Your task to perform on an android device: turn on showing notifications on the lock screen Image 0: 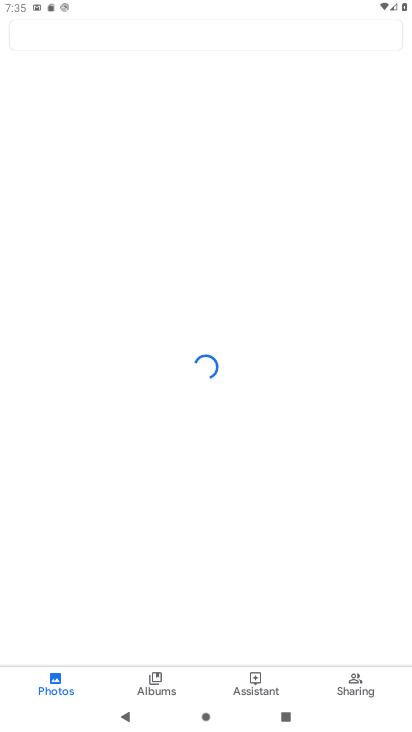
Step 0: press home button
Your task to perform on an android device: turn on showing notifications on the lock screen Image 1: 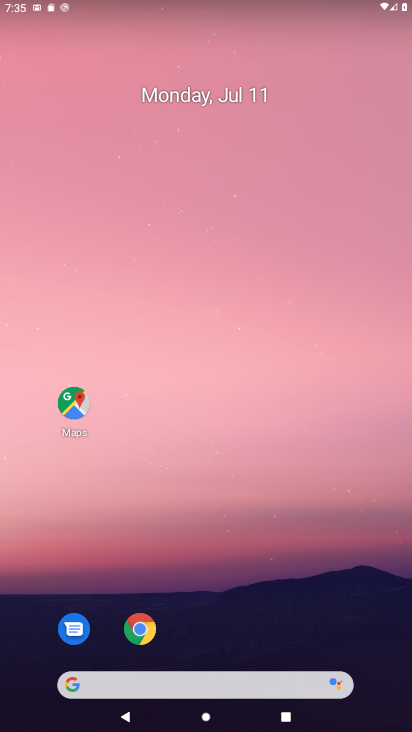
Step 1: drag from (357, 614) to (339, 208)
Your task to perform on an android device: turn on showing notifications on the lock screen Image 2: 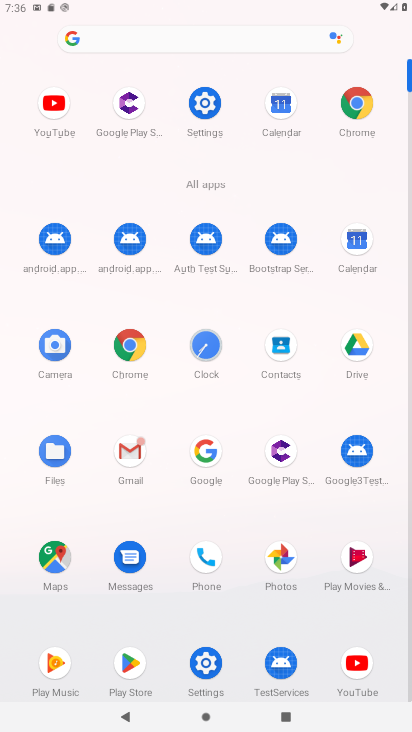
Step 2: click (207, 117)
Your task to perform on an android device: turn on showing notifications on the lock screen Image 3: 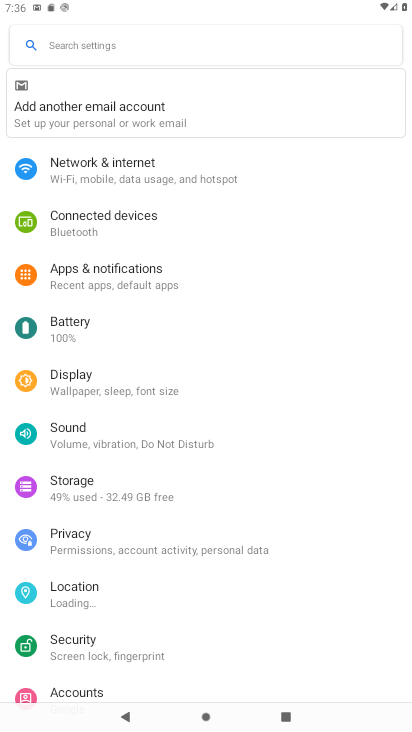
Step 3: click (206, 281)
Your task to perform on an android device: turn on showing notifications on the lock screen Image 4: 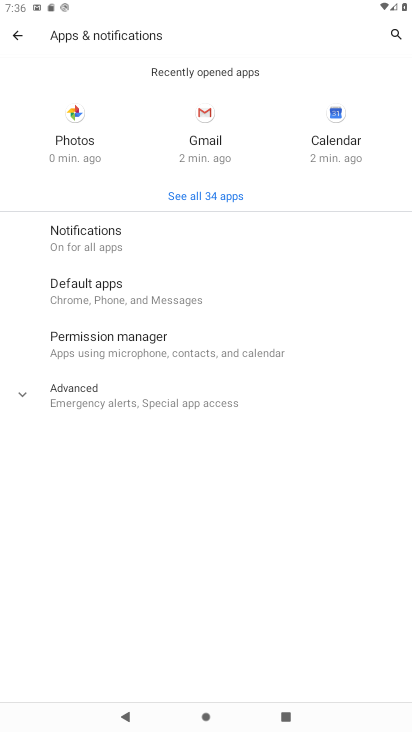
Step 4: click (151, 250)
Your task to perform on an android device: turn on showing notifications on the lock screen Image 5: 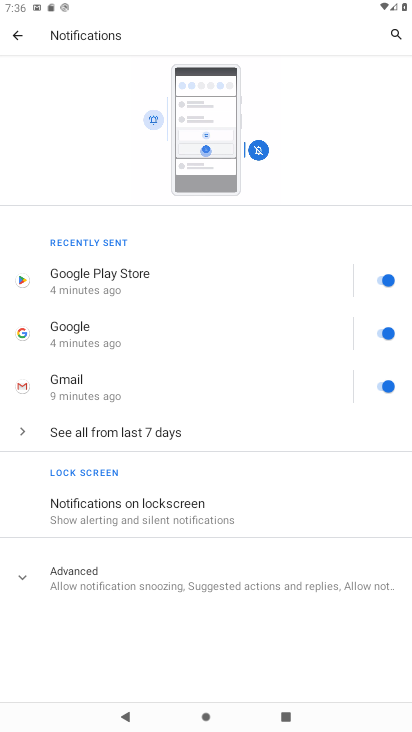
Step 5: click (224, 510)
Your task to perform on an android device: turn on showing notifications on the lock screen Image 6: 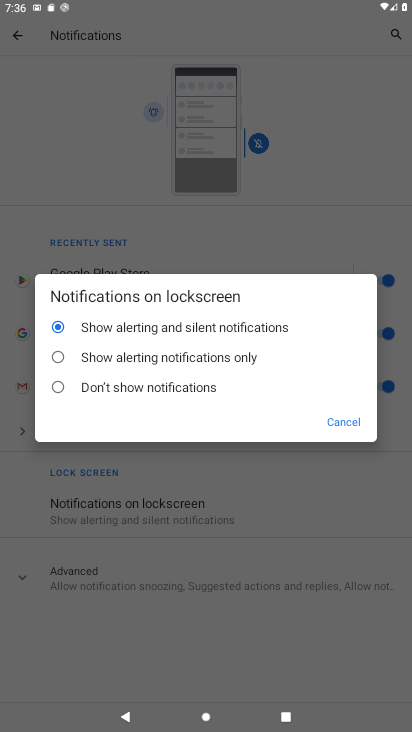
Step 6: task complete